Your task to perform on an android device: Open the map Image 0: 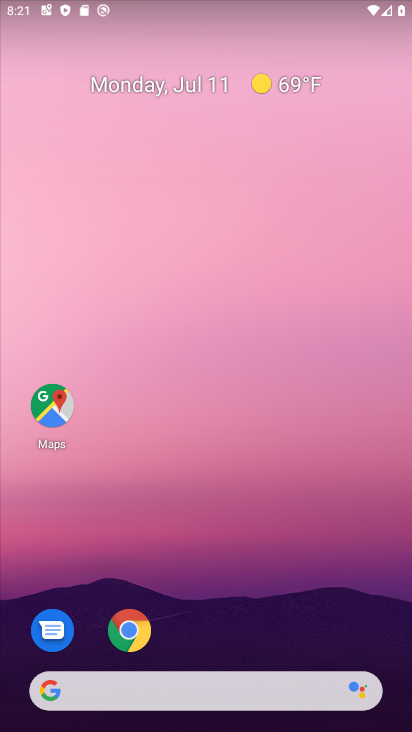
Step 0: click (36, 405)
Your task to perform on an android device: Open the map Image 1: 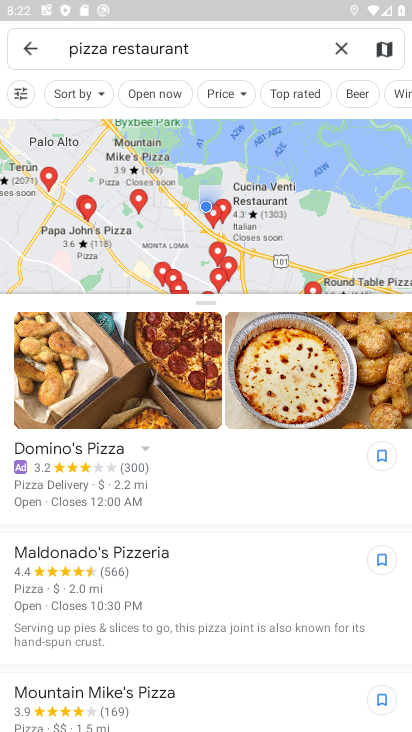
Step 1: task complete